Your task to perform on an android device: Search for sushi restaurants on Maps Image 0: 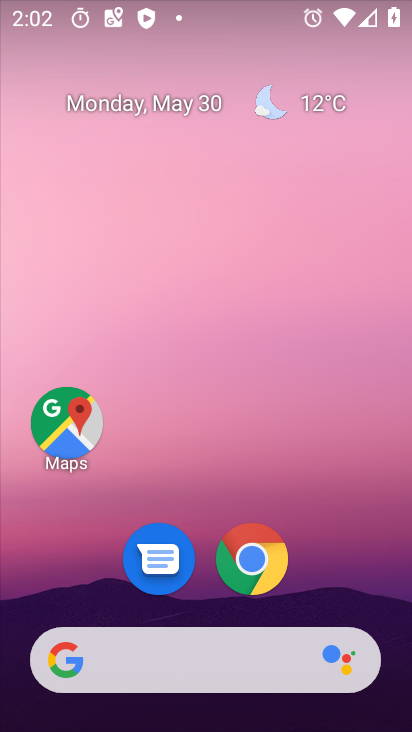
Step 0: click (57, 407)
Your task to perform on an android device: Search for sushi restaurants on Maps Image 1: 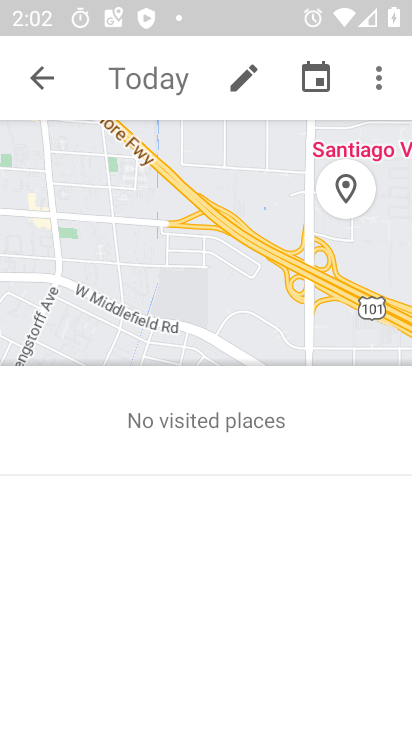
Step 1: click (16, 76)
Your task to perform on an android device: Search for sushi restaurants on Maps Image 2: 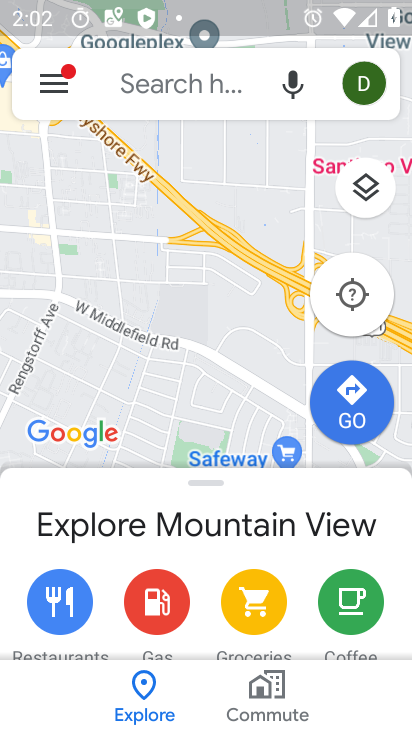
Step 2: click (193, 93)
Your task to perform on an android device: Search for sushi restaurants on Maps Image 3: 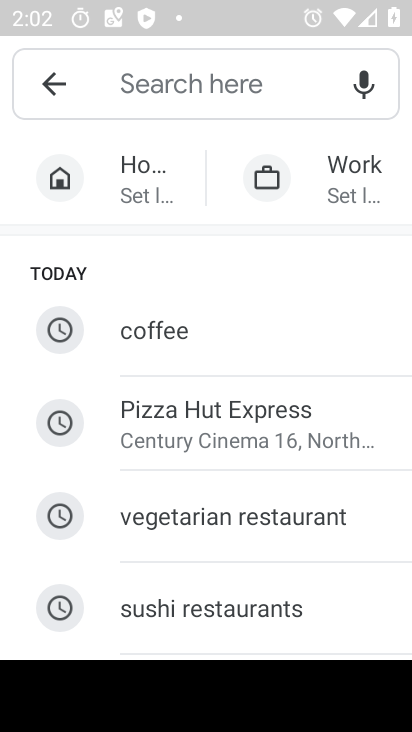
Step 3: click (196, 595)
Your task to perform on an android device: Search for sushi restaurants on Maps Image 4: 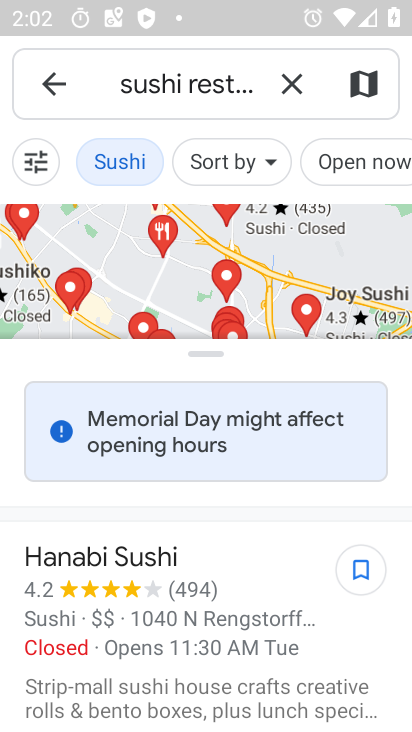
Step 4: task complete